Your task to perform on an android device: Search for "macbook air" on bestbuy, select the first entry, and add it to the cart. Image 0: 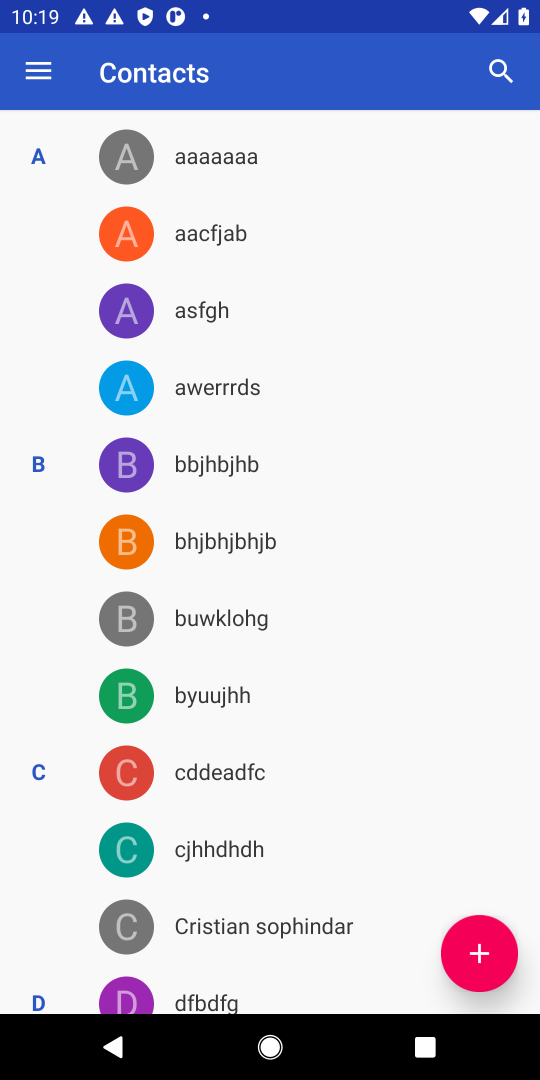
Step 0: press home button
Your task to perform on an android device: Search for "macbook air" on bestbuy, select the first entry, and add it to the cart. Image 1: 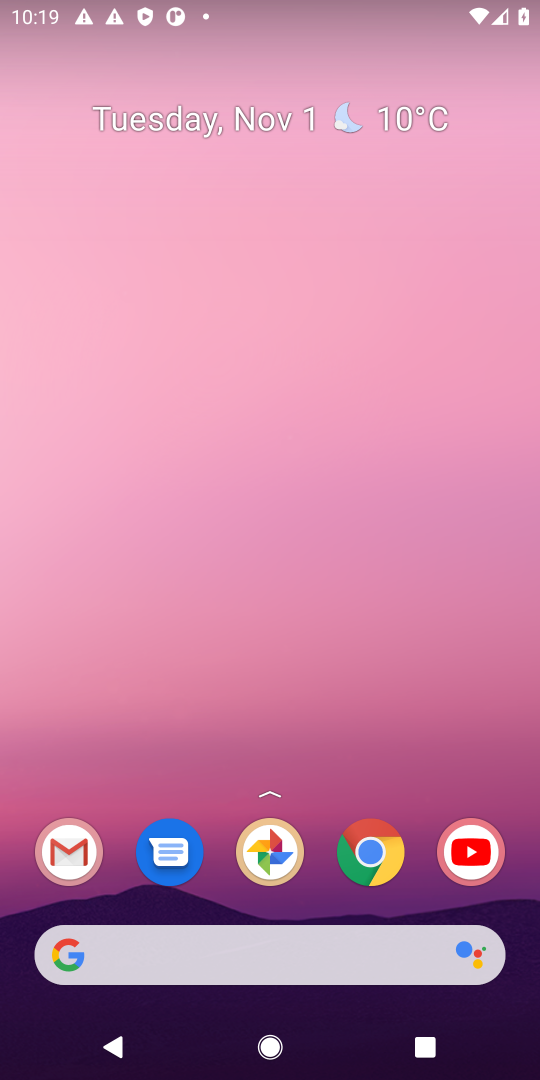
Step 1: click (44, 965)
Your task to perform on an android device: Search for "macbook air" on bestbuy, select the first entry, and add it to the cart. Image 2: 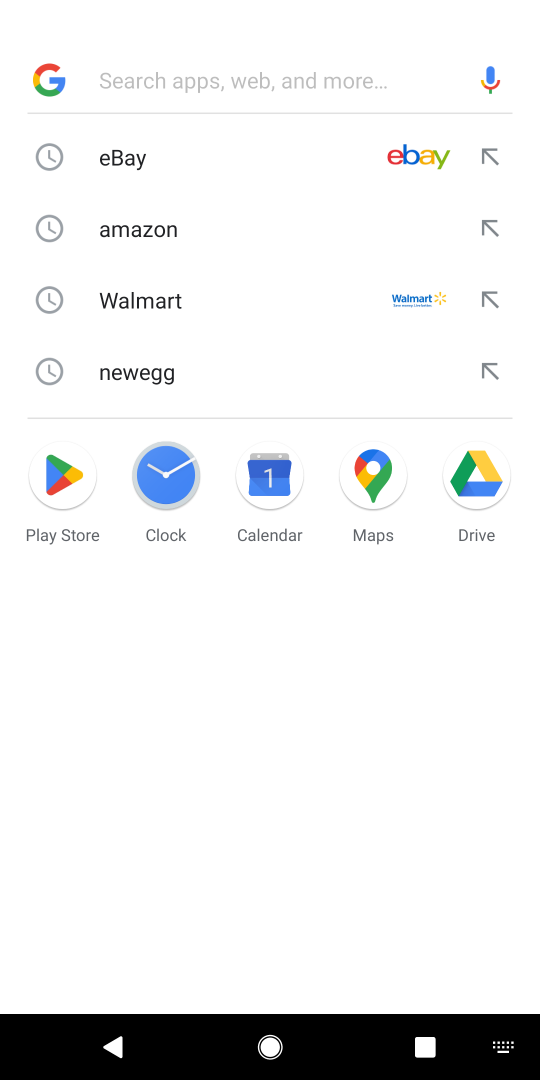
Step 2: click (58, 954)
Your task to perform on an android device: Search for "macbook air" on bestbuy, select the first entry, and add it to the cart. Image 3: 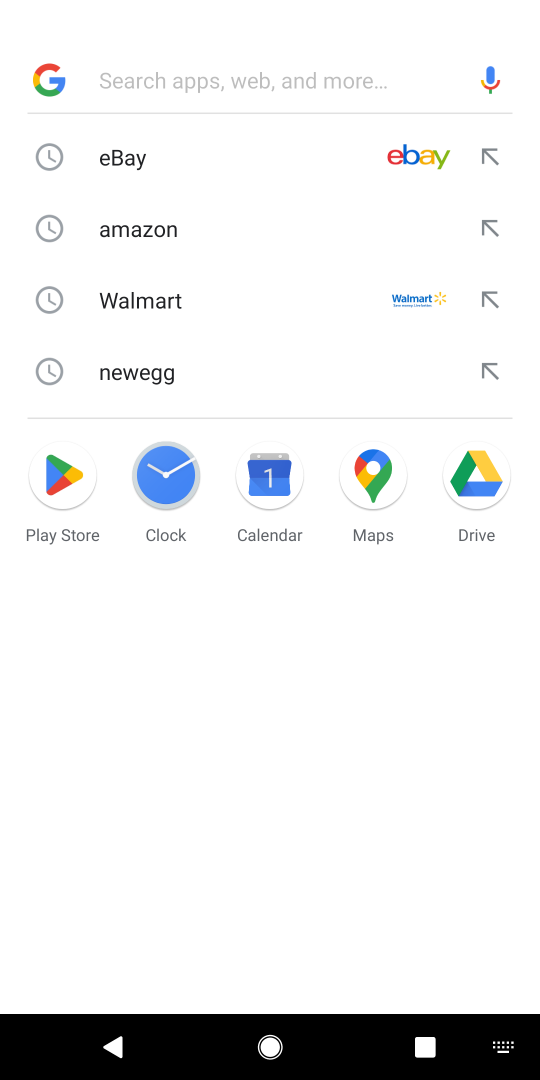
Step 3: type "bestbuy"
Your task to perform on an android device: Search for "macbook air" on bestbuy, select the first entry, and add it to the cart. Image 4: 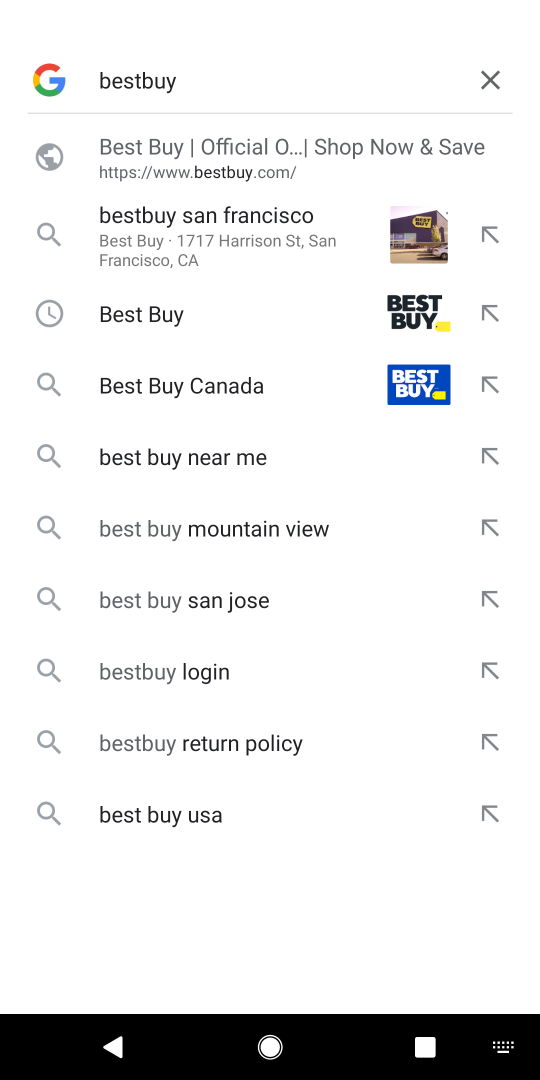
Step 4: press enter
Your task to perform on an android device: Search for "macbook air" on bestbuy, select the first entry, and add it to the cart. Image 5: 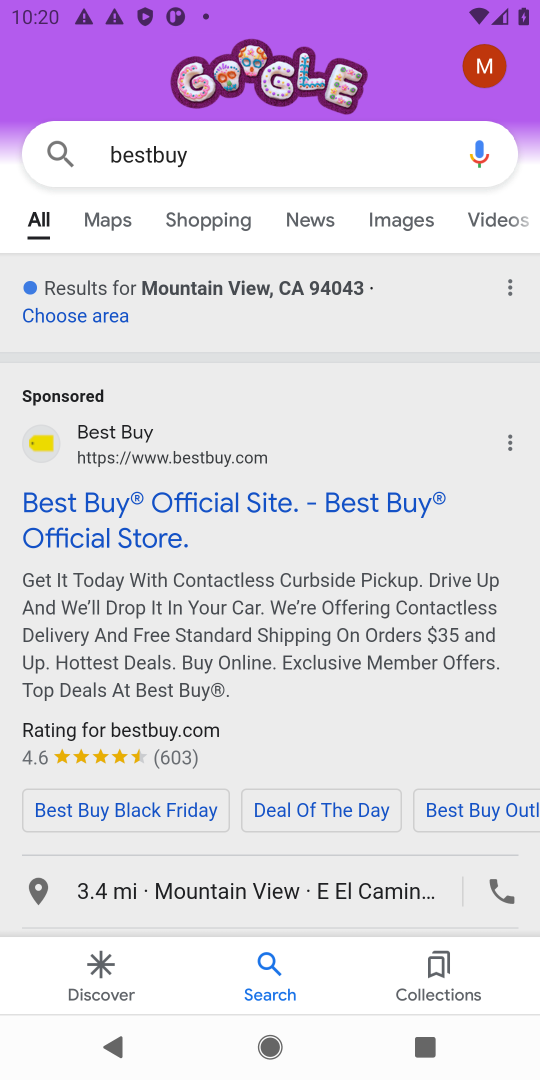
Step 5: click (250, 511)
Your task to perform on an android device: Search for "macbook air" on bestbuy, select the first entry, and add it to the cart. Image 6: 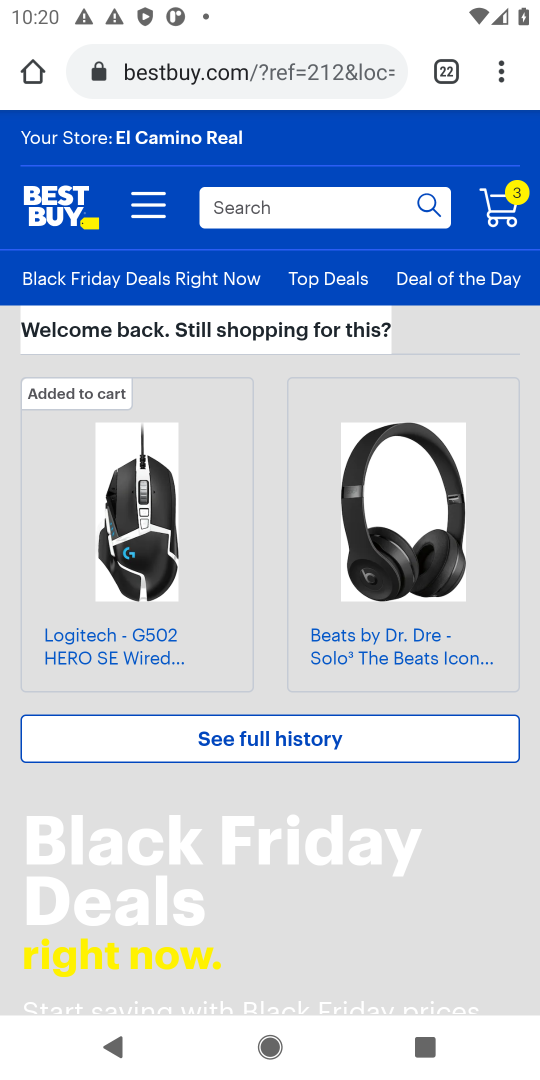
Step 6: click (326, 200)
Your task to perform on an android device: Search for "macbook air" on bestbuy, select the first entry, and add it to the cart. Image 7: 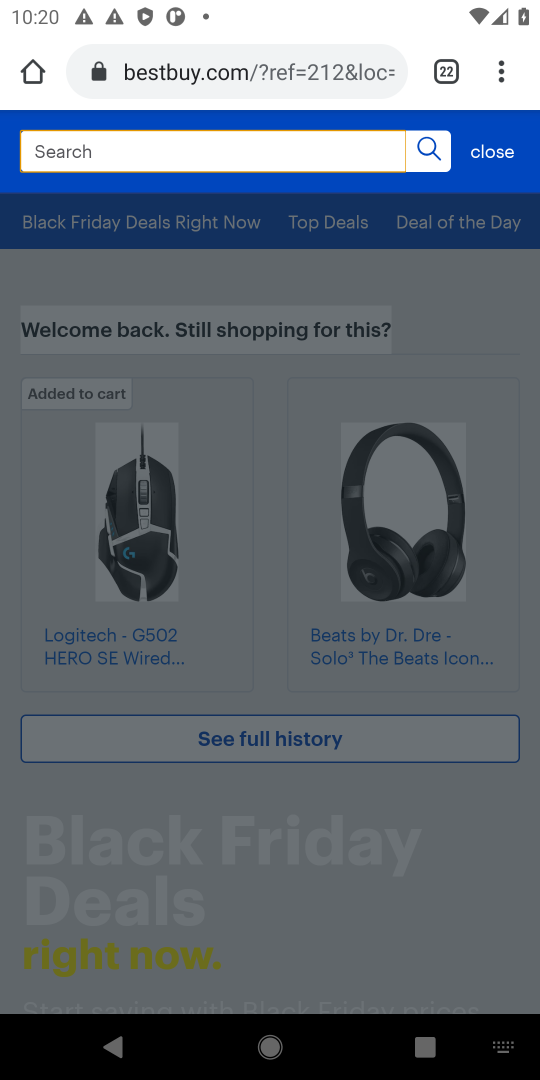
Step 7: type "macbook air""
Your task to perform on an android device: Search for "macbook air" on bestbuy, select the first entry, and add it to the cart. Image 8: 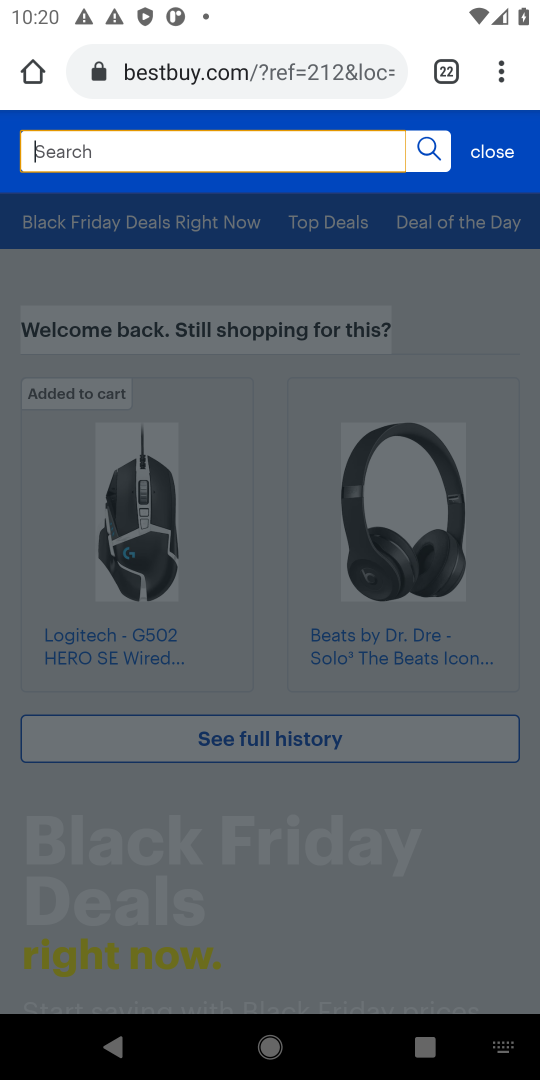
Step 8: press enter
Your task to perform on an android device: Search for "macbook air" on bestbuy, select the first entry, and add it to the cart. Image 9: 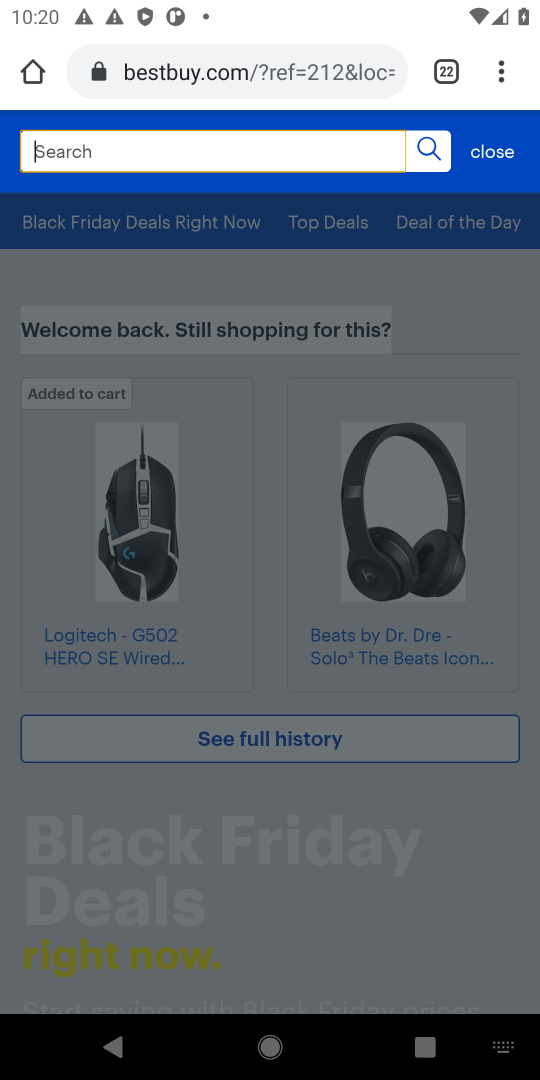
Step 9: press enter
Your task to perform on an android device: Search for "macbook air" on bestbuy, select the first entry, and add it to the cart. Image 10: 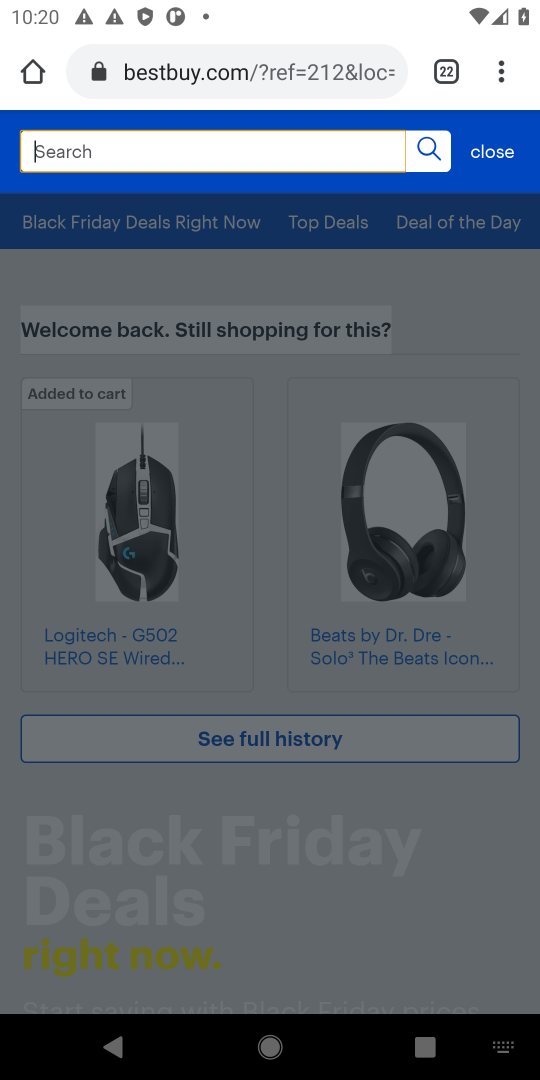
Step 10: type "macbook air""
Your task to perform on an android device: Search for "macbook air" on bestbuy, select the first entry, and add it to the cart. Image 11: 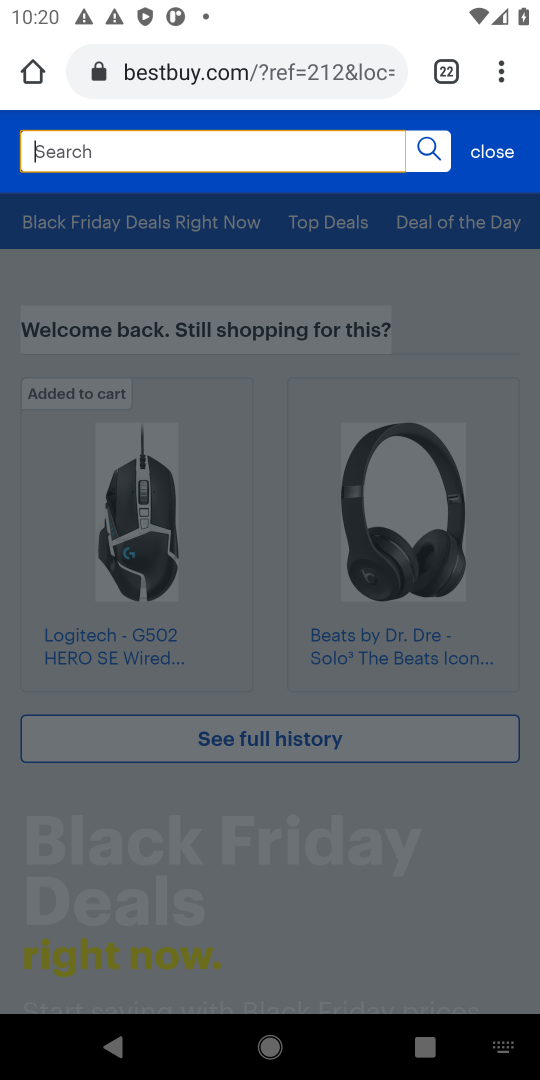
Step 11: press enter
Your task to perform on an android device: Search for "macbook air" on bestbuy, select the first entry, and add it to the cart. Image 12: 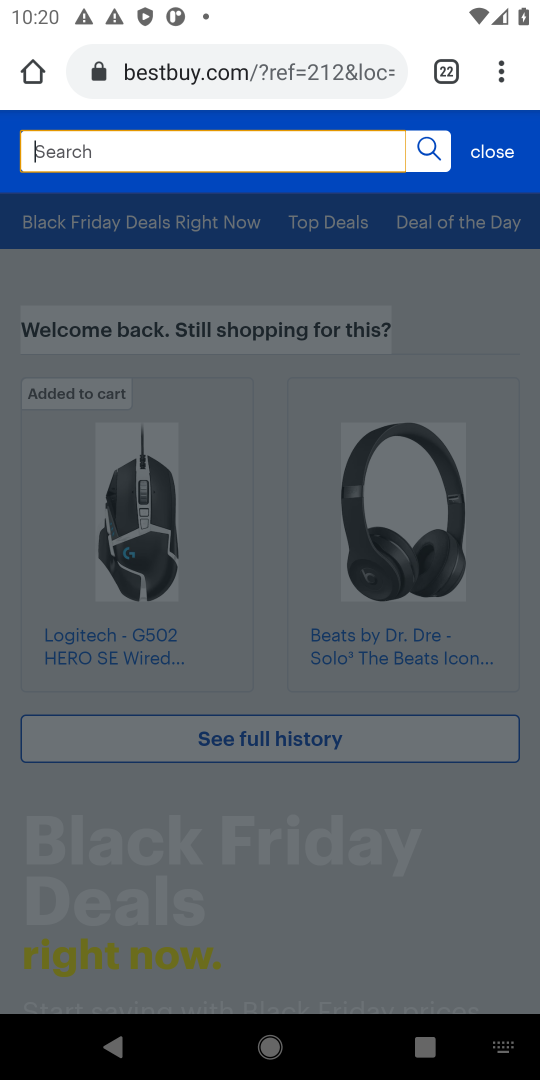
Step 12: type "macbook air""
Your task to perform on an android device: Search for "macbook air" on bestbuy, select the first entry, and add it to the cart. Image 13: 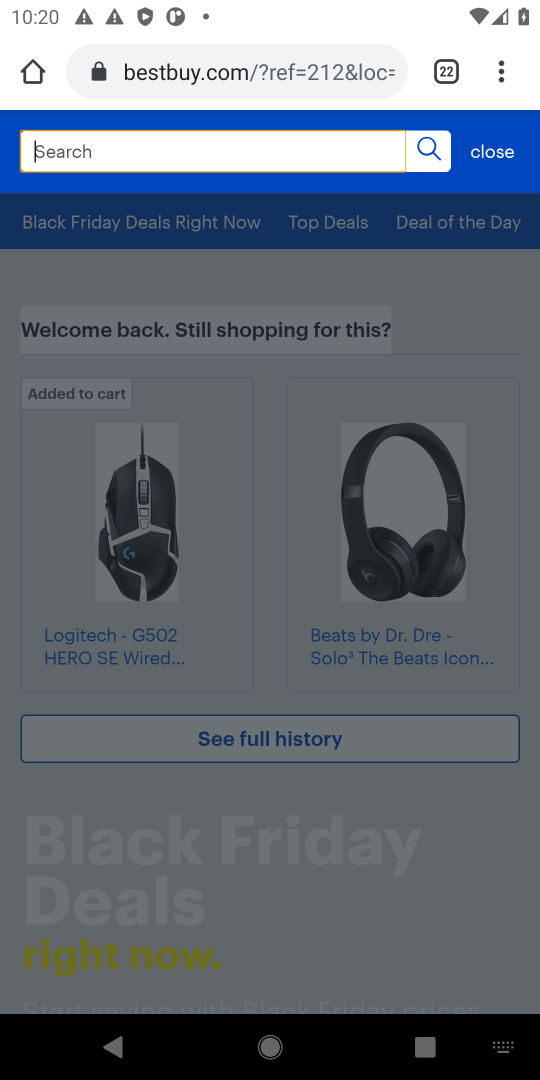
Step 13: click (132, 148)
Your task to perform on an android device: Search for "macbook air" on bestbuy, select the first entry, and add it to the cart. Image 14: 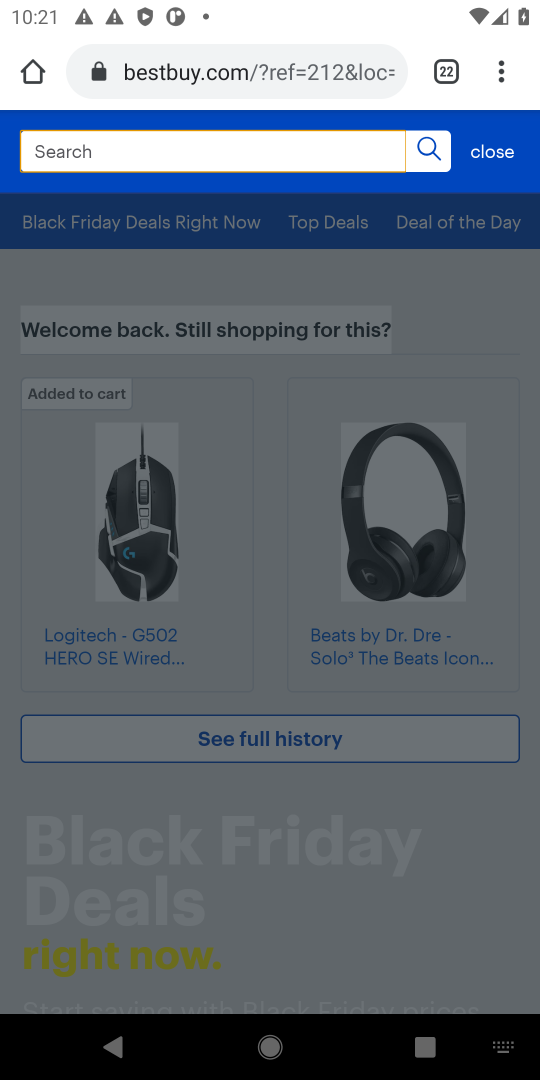
Step 14: click (133, 148)
Your task to perform on an android device: Search for "macbook air" on bestbuy, select the first entry, and add it to the cart. Image 15: 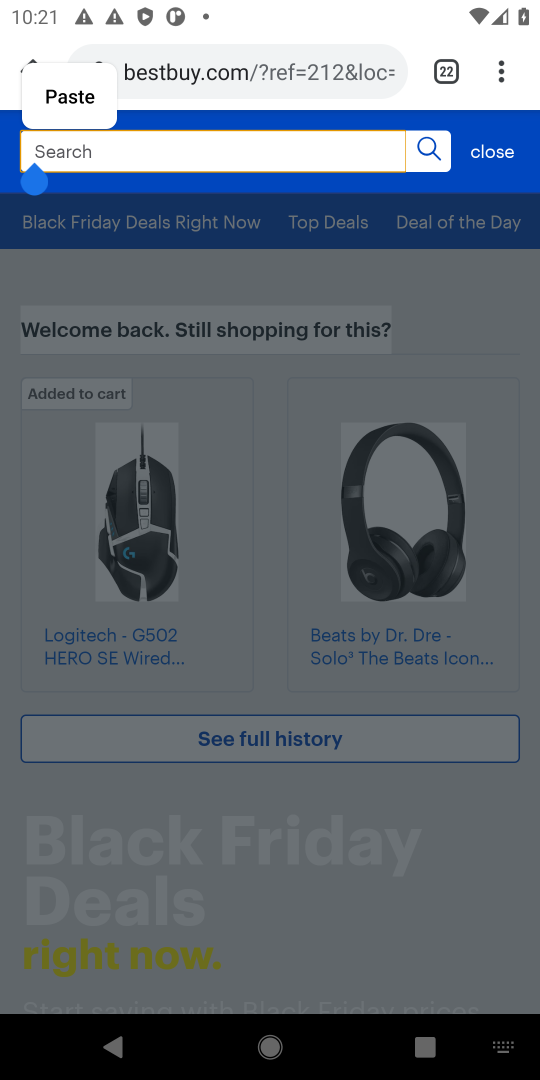
Step 15: click (75, 91)
Your task to perform on an android device: Search for "macbook air" on bestbuy, select the first entry, and add it to the cart. Image 16: 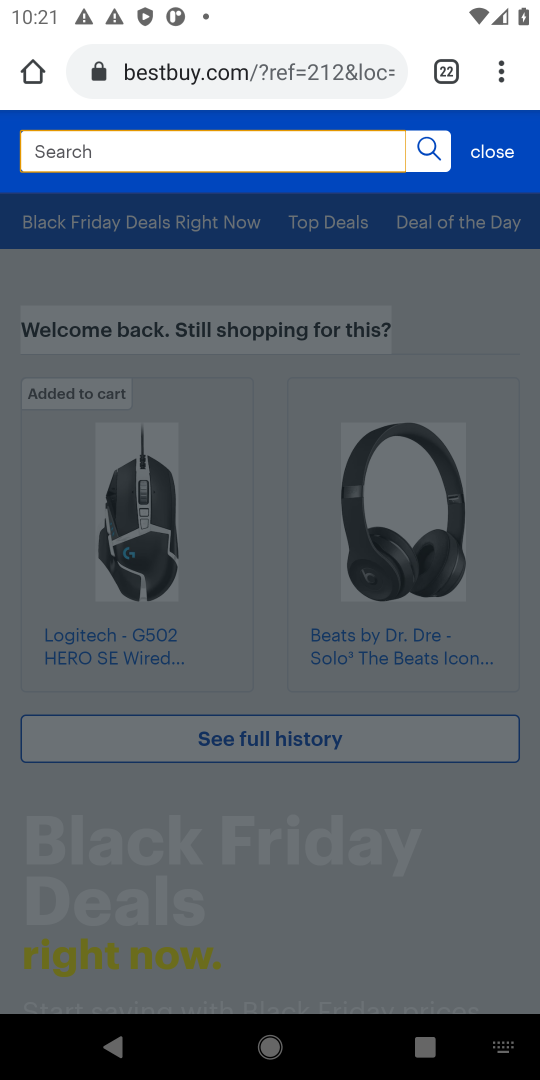
Step 16: type "macbook air""
Your task to perform on an android device: Search for "macbook air" on bestbuy, select the first entry, and add it to the cart. Image 17: 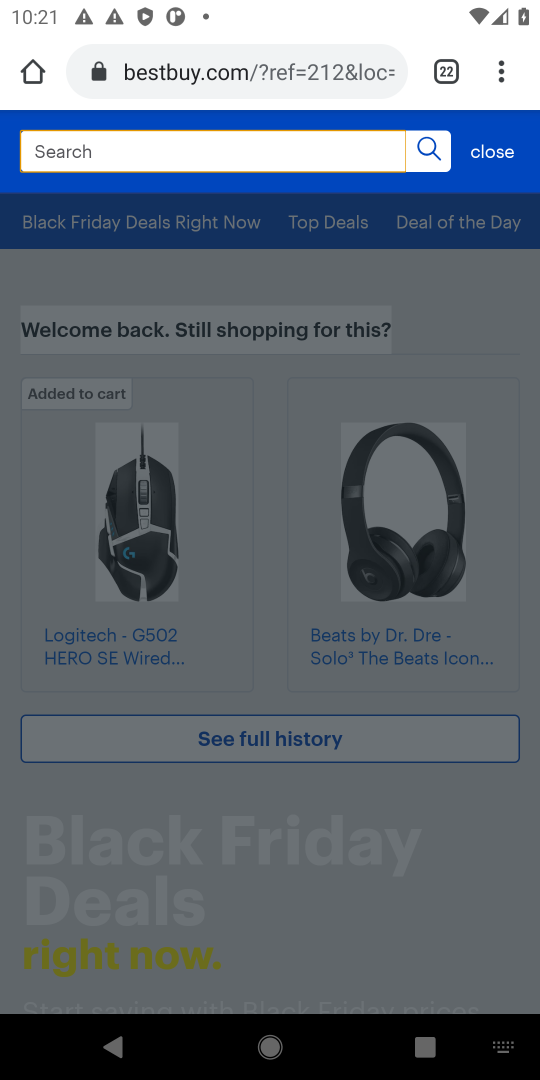
Step 17: click (57, 148)
Your task to perform on an android device: Search for "macbook air" on bestbuy, select the first entry, and add it to the cart. Image 18: 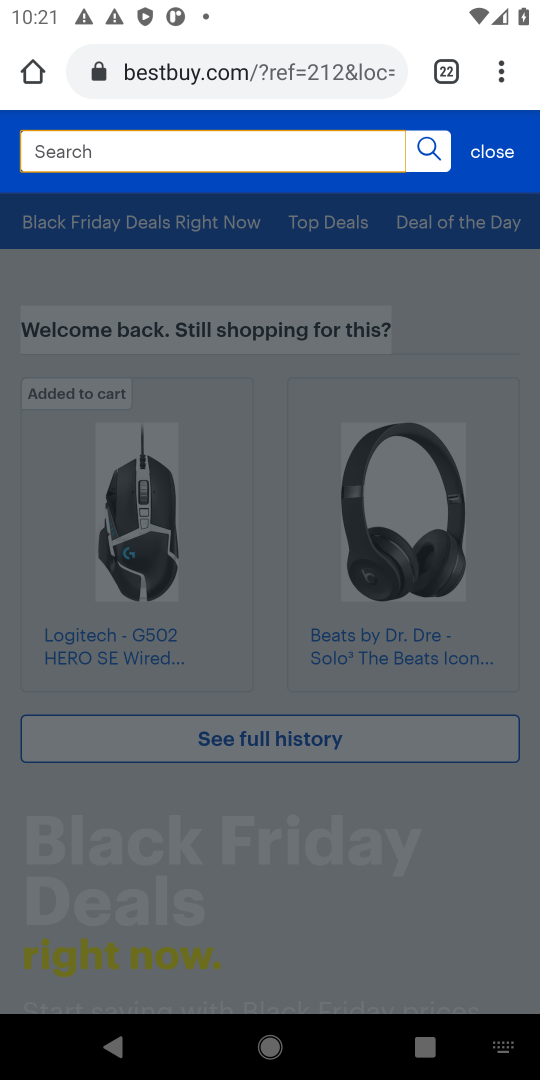
Step 18: press enter
Your task to perform on an android device: Search for "macbook air" on bestbuy, select the first entry, and add it to the cart. Image 19: 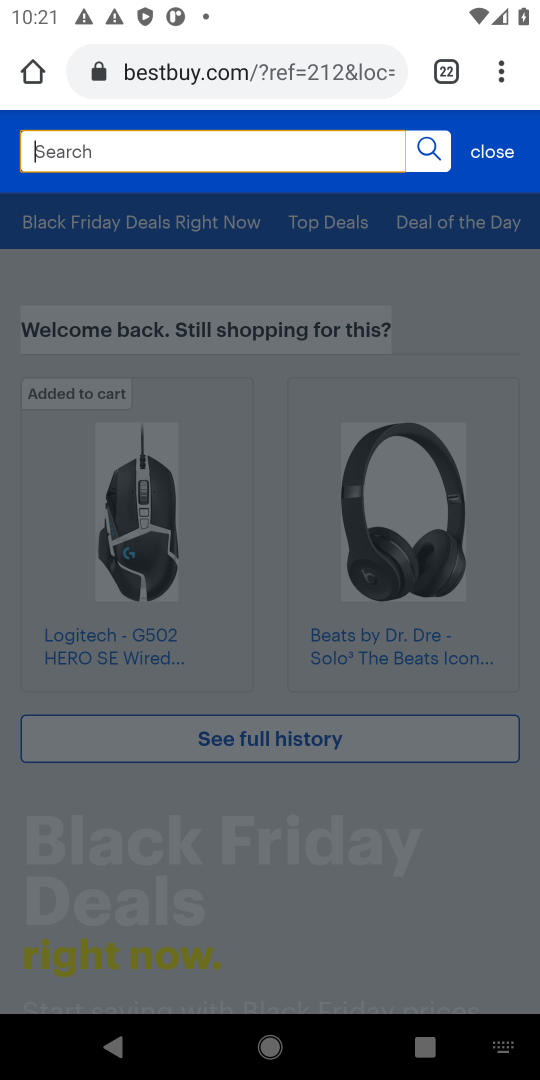
Step 19: press enter
Your task to perform on an android device: Search for "macbook air" on bestbuy, select the first entry, and add it to the cart. Image 20: 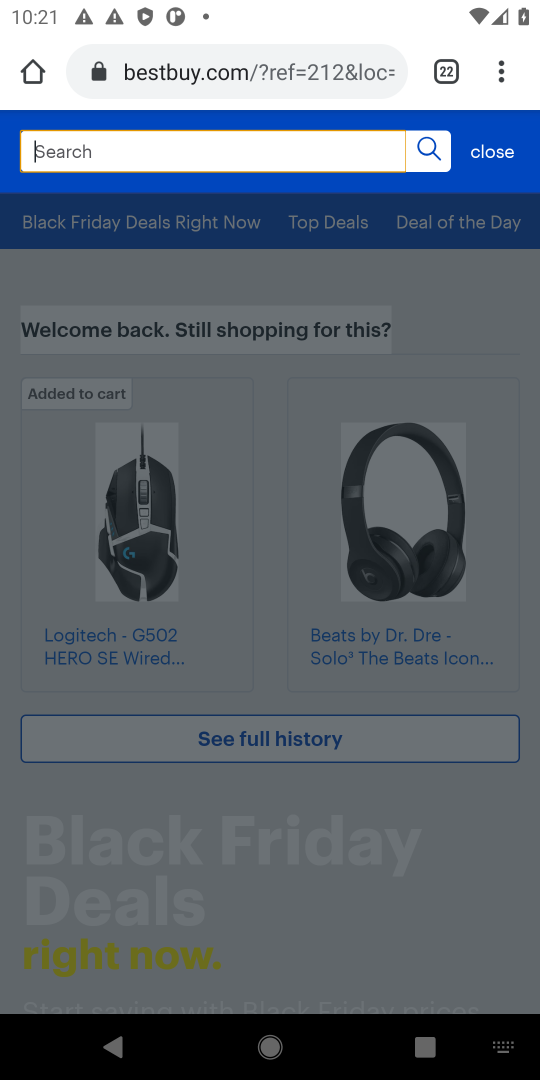
Step 20: type "macbook air""
Your task to perform on an android device: Search for "macbook air" on bestbuy, select the first entry, and add it to the cart. Image 21: 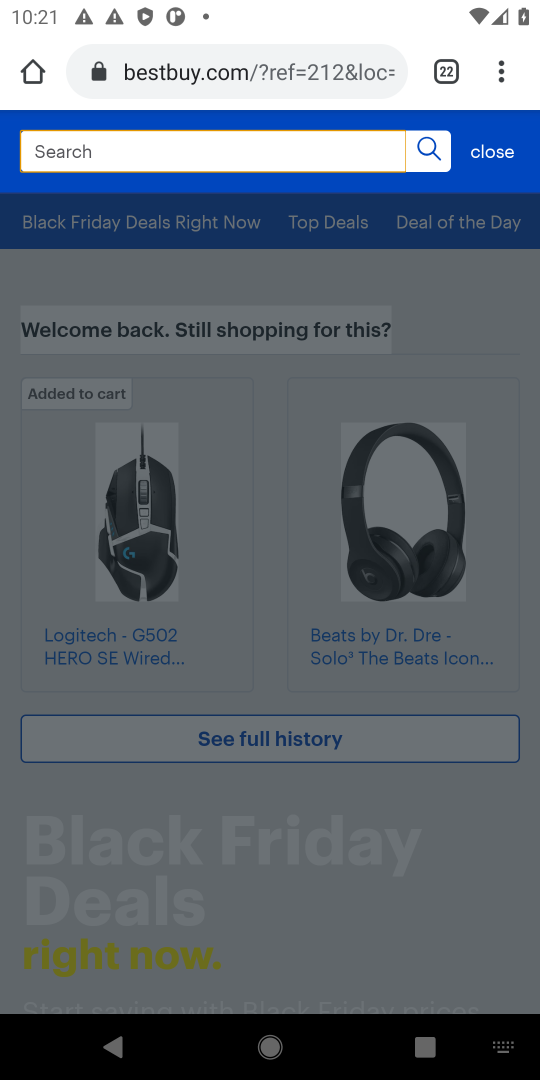
Step 21: press enter
Your task to perform on an android device: Search for "macbook air" on bestbuy, select the first entry, and add it to the cart. Image 22: 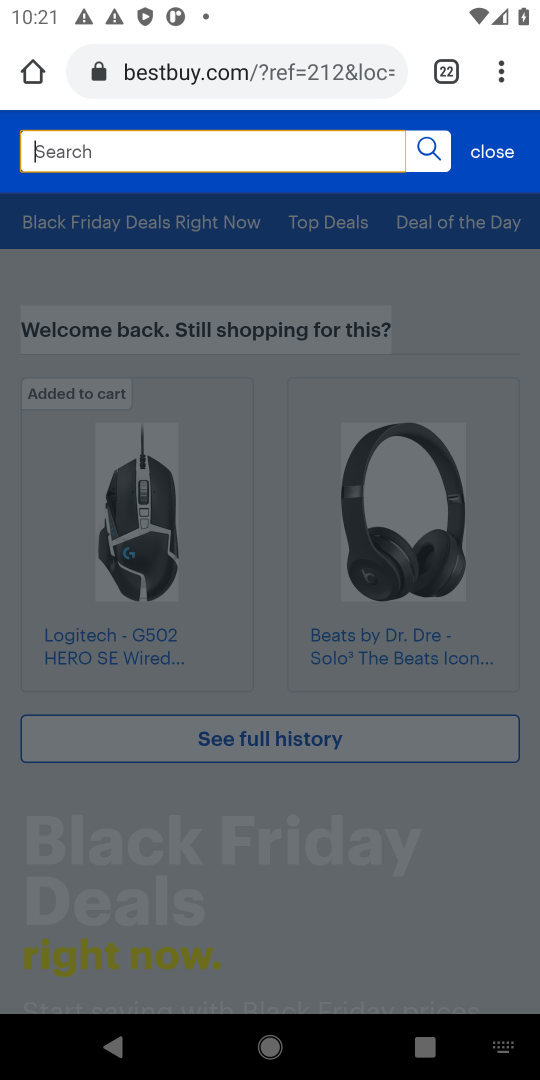
Step 22: task complete